Your task to perform on an android device: Open display settings Image 0: 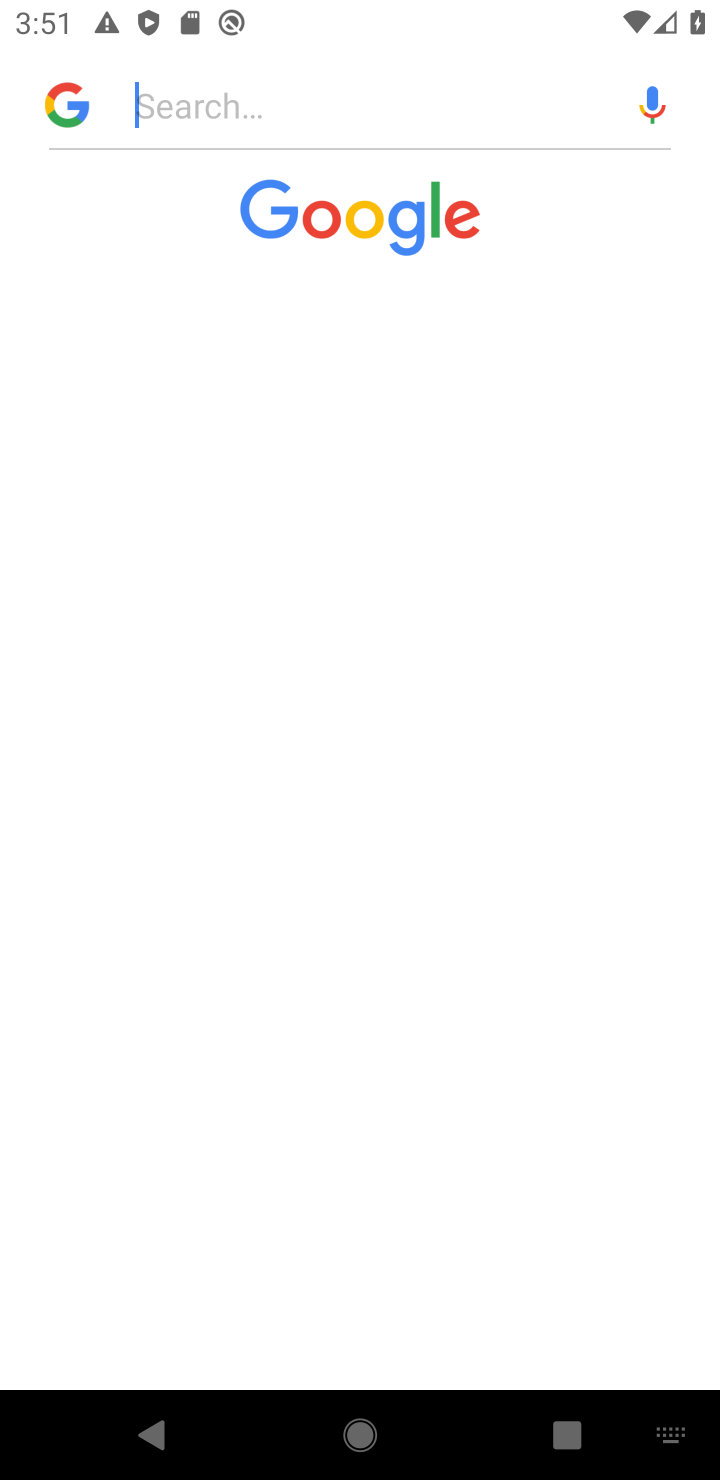
Step 0: press back button
Your task to perform on an android device: Open display settings Image 1: 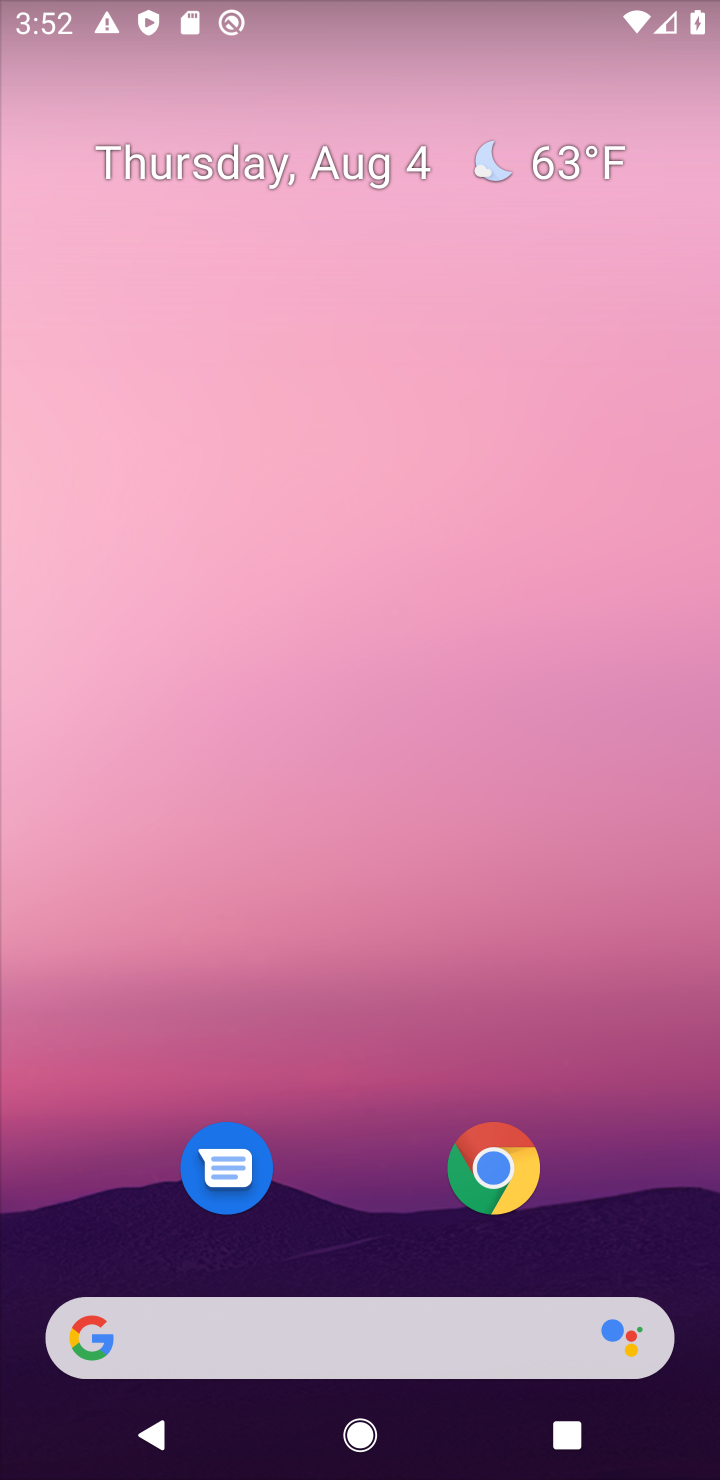
Step 1: drag from (437, 1038) to (437, 40)
Your task to perform on an android device: Open display settings Image 2: 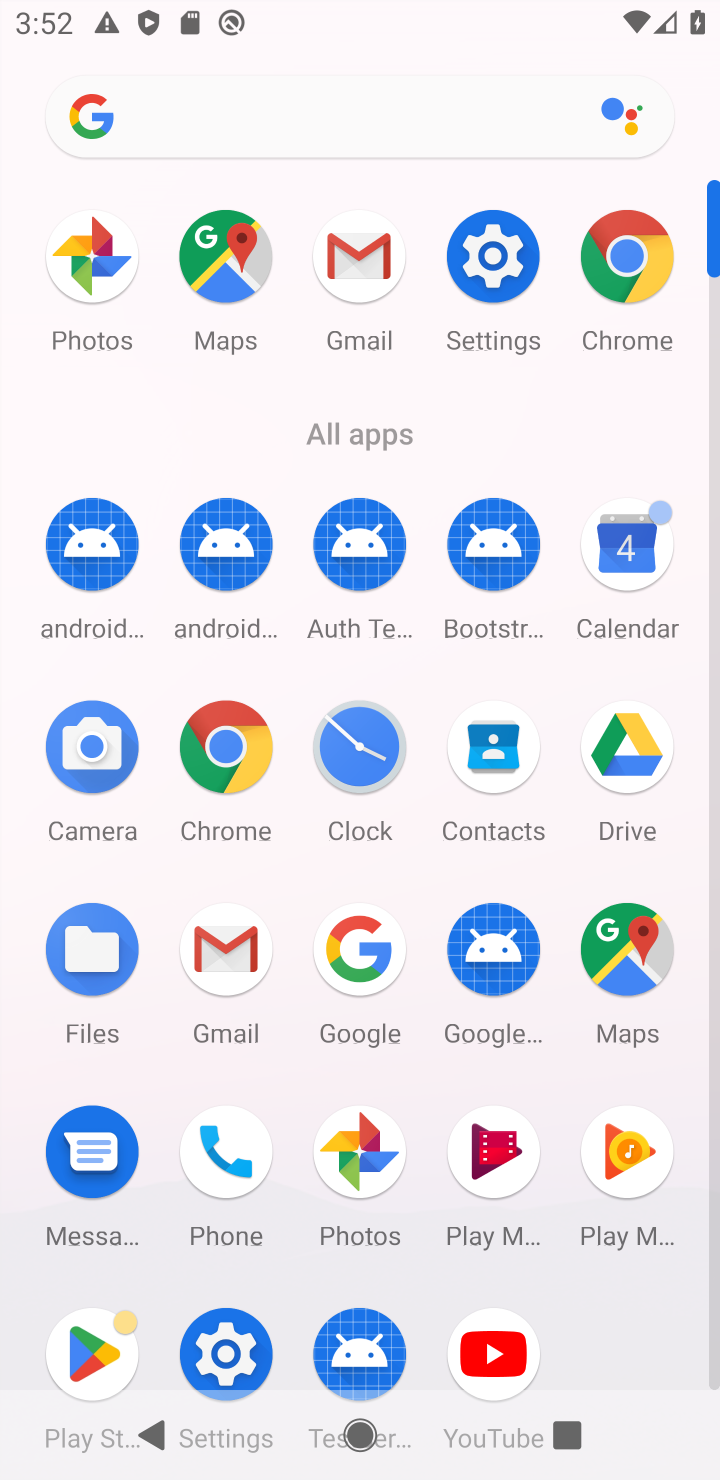
Step 2: click (487, 274)
Your task to perform on an android device: Open display settings Image 3: 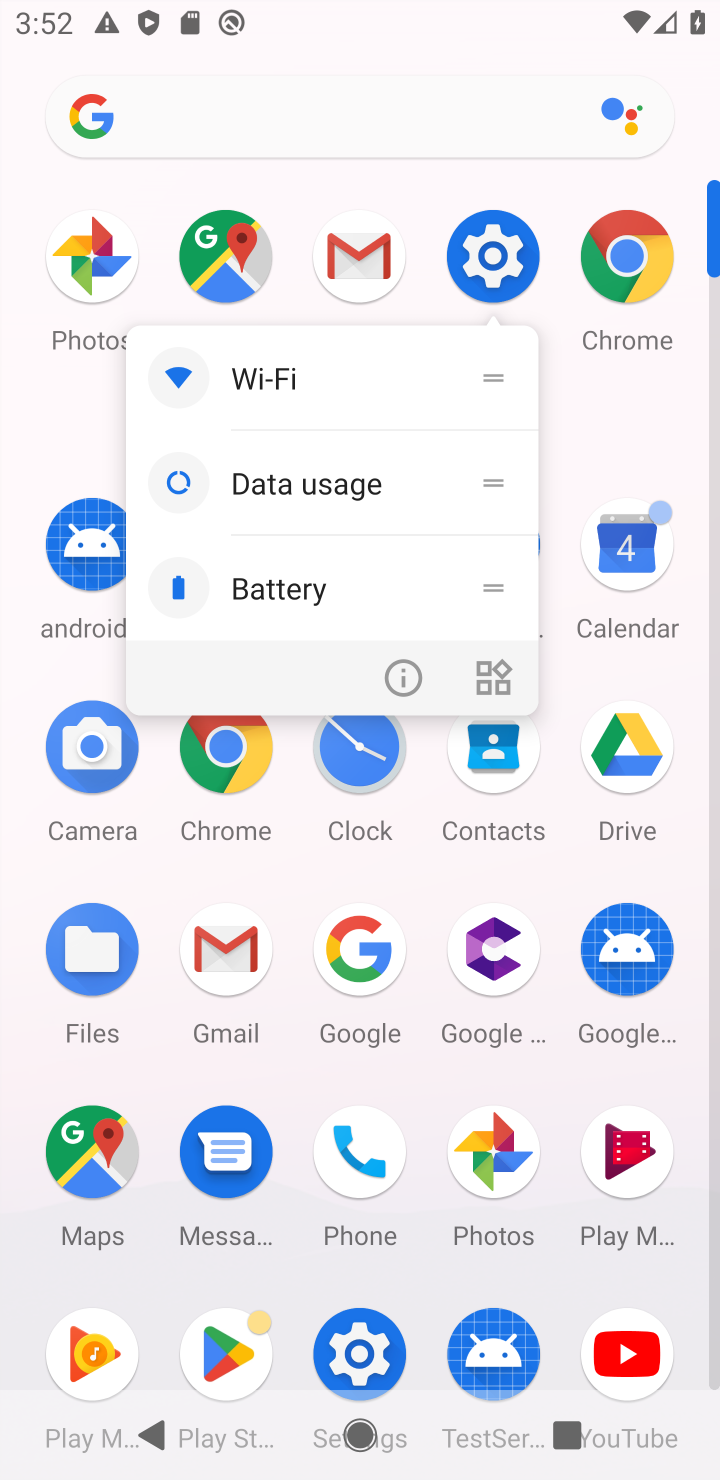
Step 3: click (346, 1322)
Your task to perform on an android device: Open display settings Image 4: 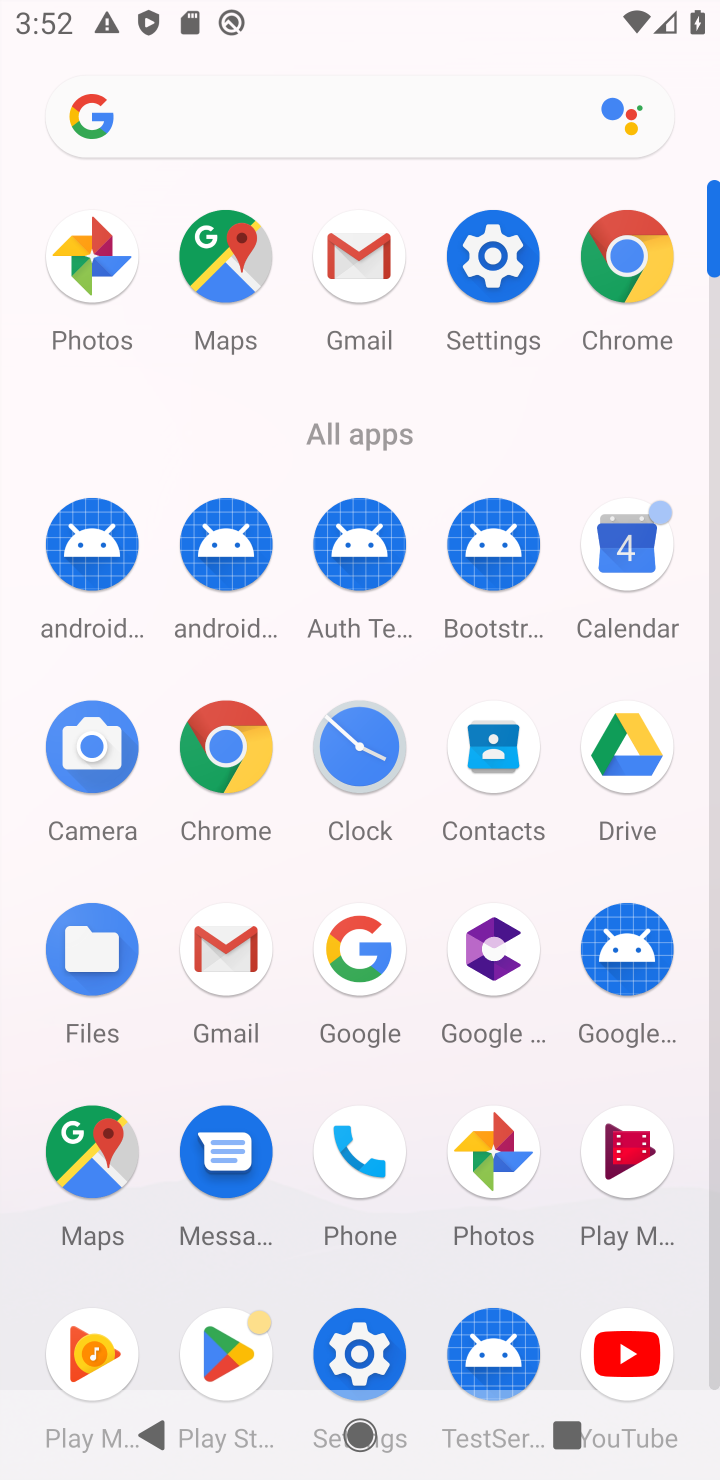
Step 4: click (390, 1327)
Your task to perform on an android device: Open display settings Image 5: 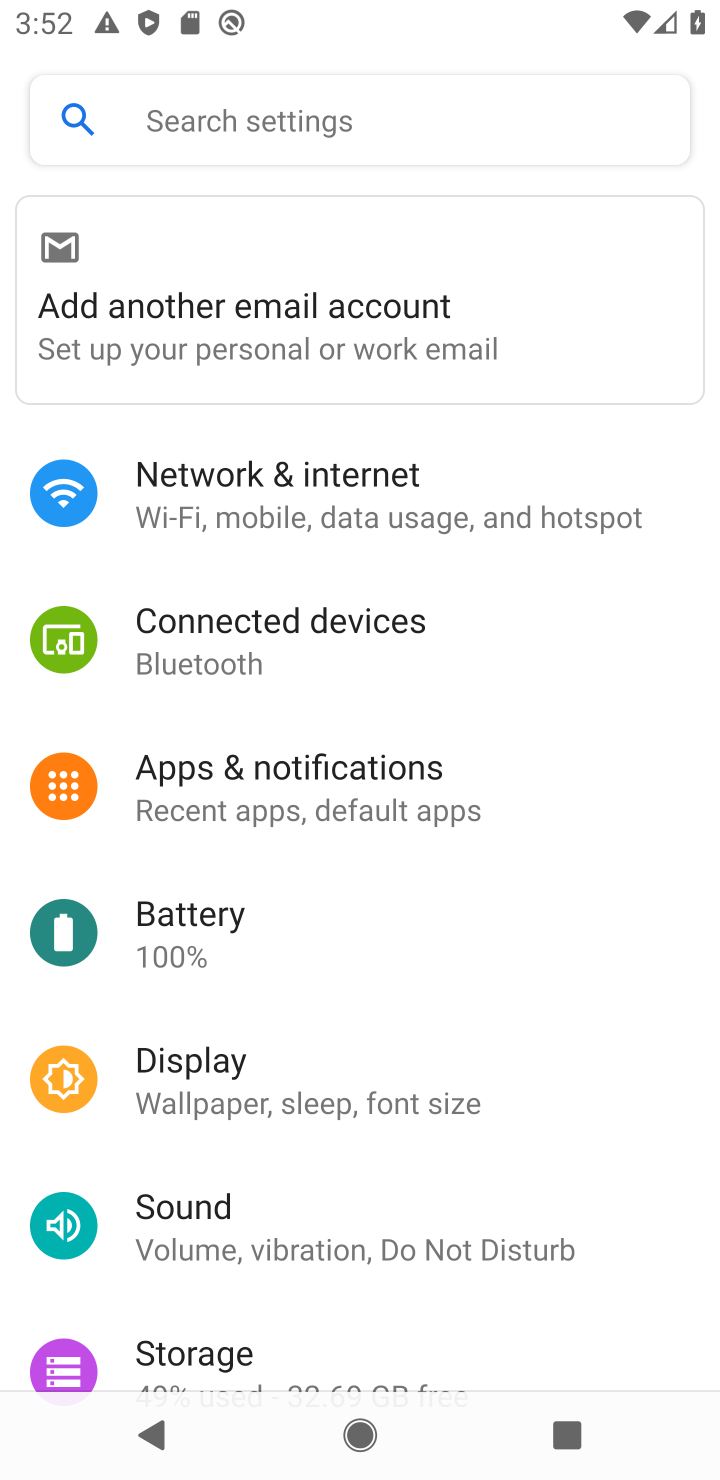
Step 5: click (213, 1099)
Your task to perform on an android device: Open display settings Image 6: 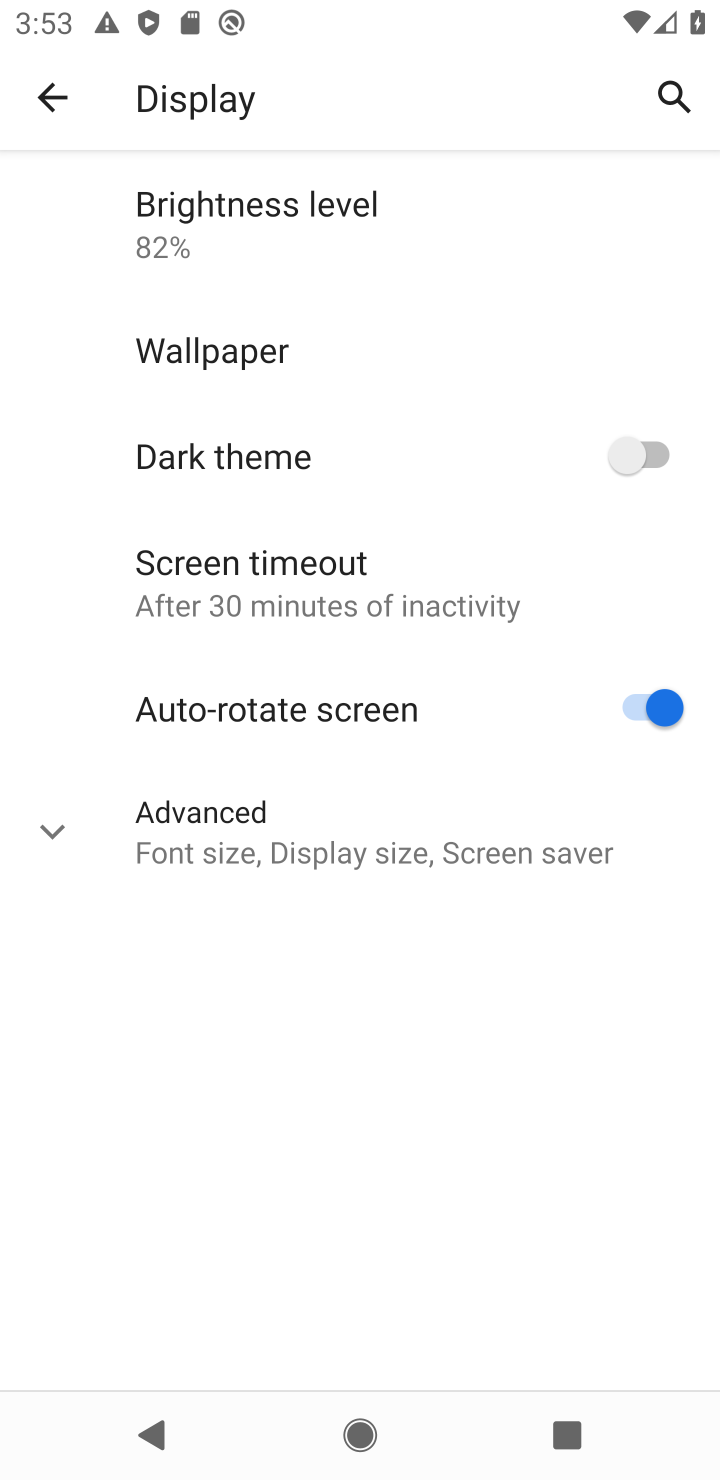
Step 6: task complete